Your task to perform on an android device: Open Yahoo.com Image 0: 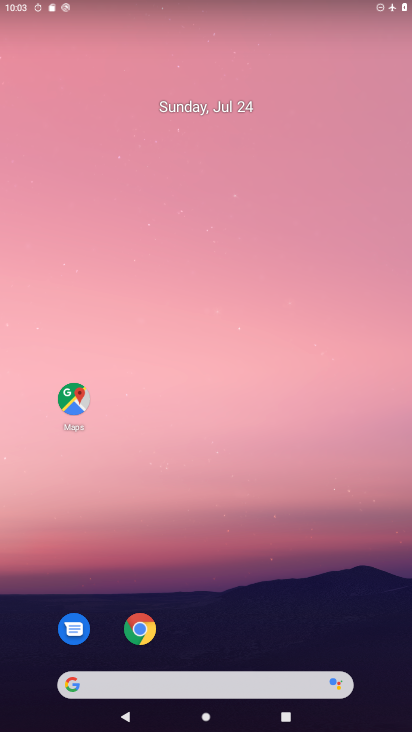
Step 0: drag from (258, 667) to (294, 125)
Your task to perform on an android device: Open Yahoo.com Image 1: 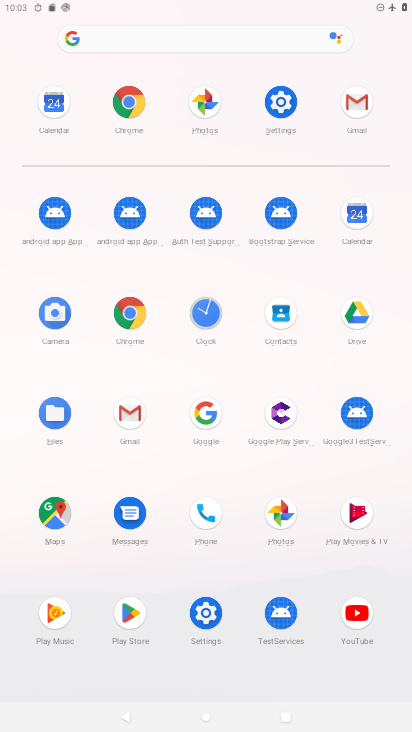
Step 1: click (127, 113)
Your task to perform on an android device: Open Yahoo.com Image 2: 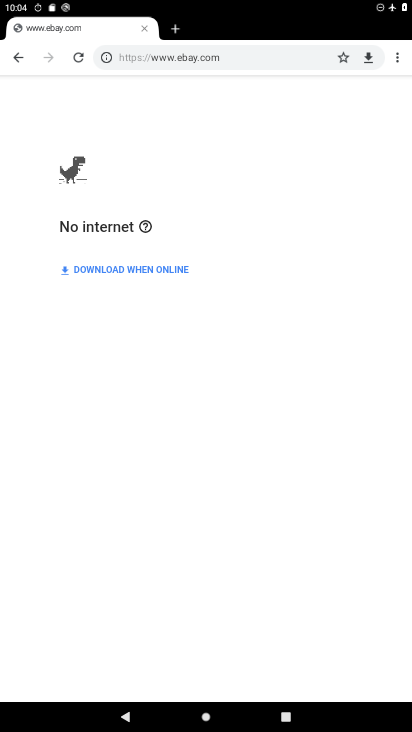
Step 2: click (302, 63)
Your task to perform on an android device: Open Yahoo.com Image 3: 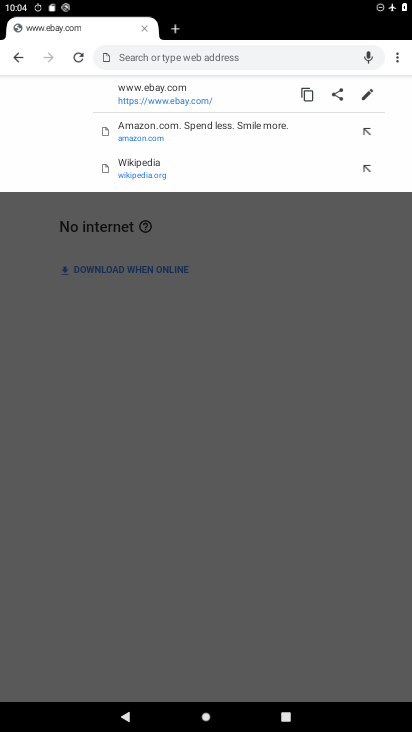
Step 3: click (302, 63)
Your task to perform on an android device: Open Yahoo.com Image 4: 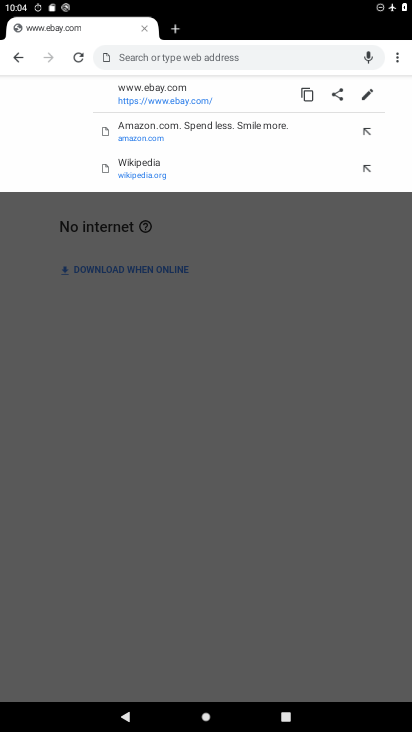
Step 4: click (302, 63)
Your task to perform on an android device: Open Yahoo.com Image 5: 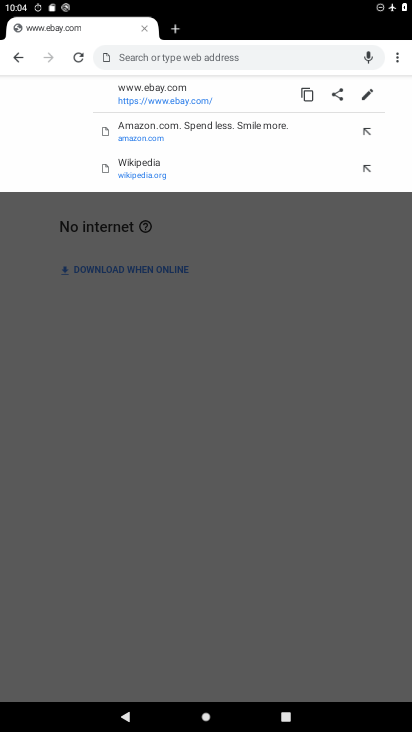
Step 5: click (286, 59)
Your task to perform on an android device: Open Yahoo.com Image 6: 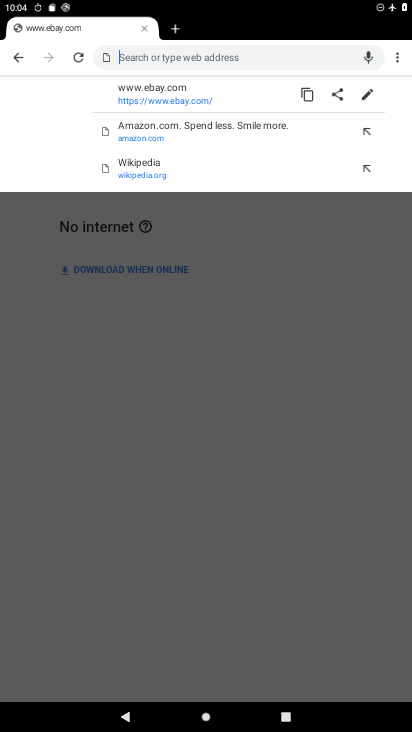
Step 6: click (286, 59)
Your task to perform on an android device: Open Yahoo.com Image 7: 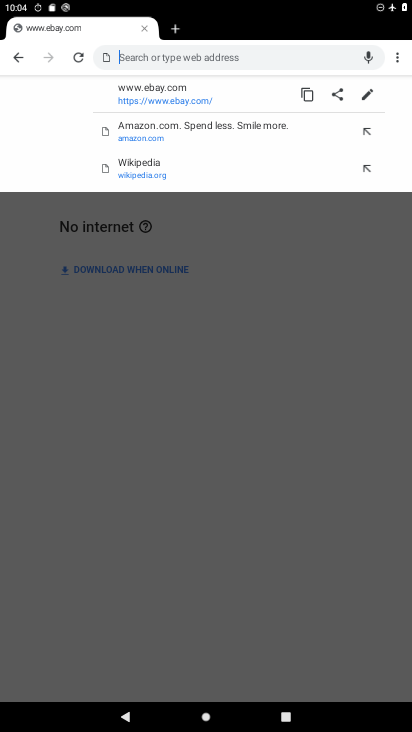
Step 7: click (286, 59)
Your task to perform on an android device: Open Yahoo.com Image 8: 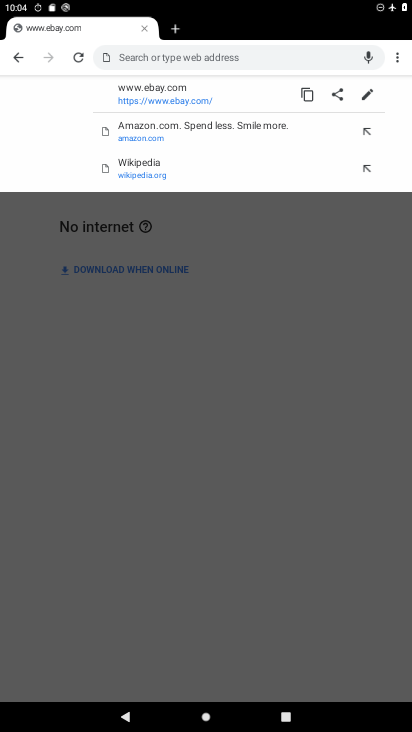
Step 8: type "yahoo"
Your task to perform on an android device: Open Yahoo.com Image 9: 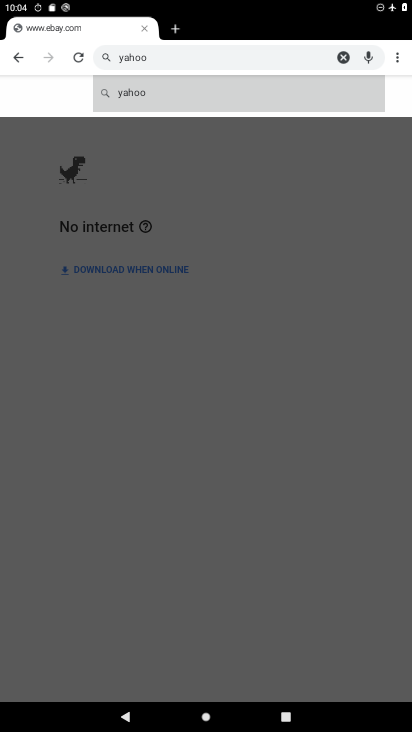
Step 9: click (303, 94)
Your task to perform on an android device: Open Yahoo.com Image 10: 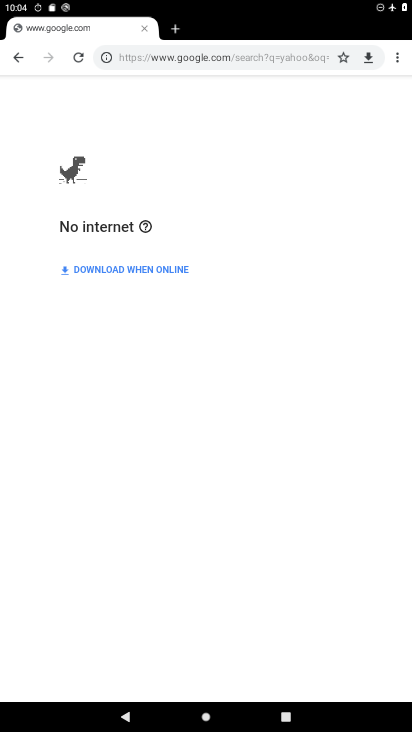
Step 10: task complete